Your task to perform on an android device: What's the weather going to be tomorrow? Image 0: 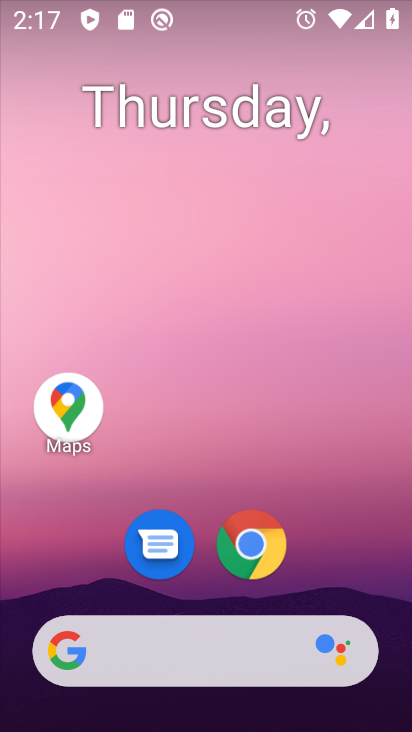
Step 0: click (251, 548)
Your task to perform on an android device: What's the weather going to be tomorrow? Image 1: 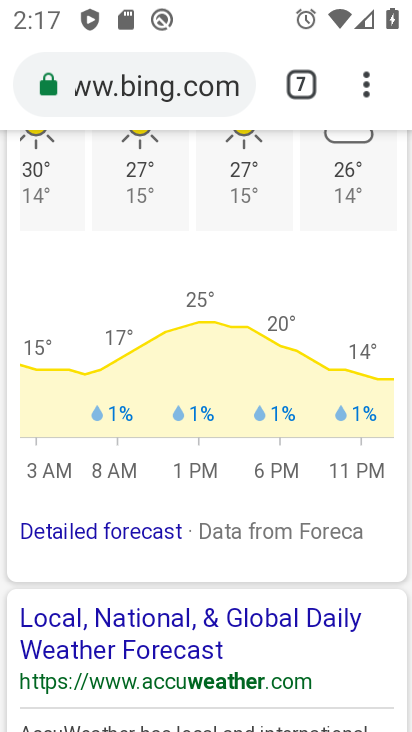
Step 1: click (301, 70)
Your task to perform on an android device: What's the weather going to be tomorrow? Image 2: 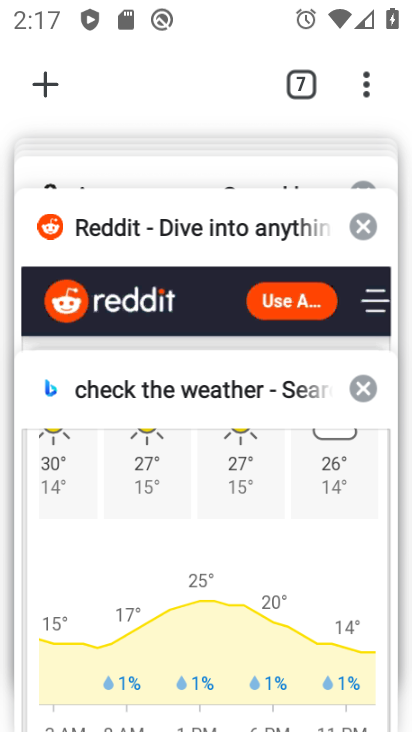
Step 2: click (128, 558)
Your task to perform on an android device: What's the weather going to be tomorrow? Image 3: 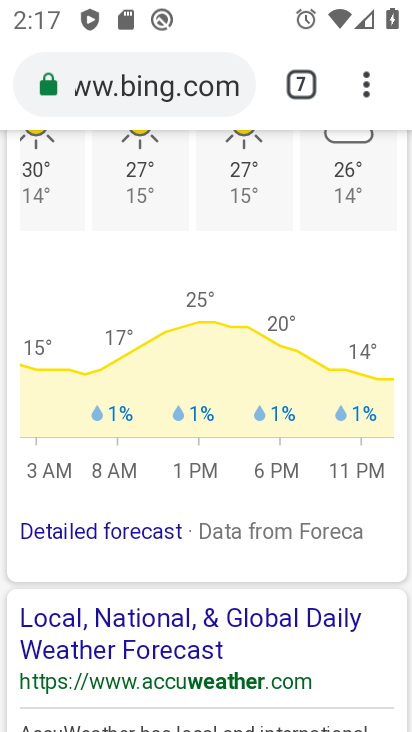
Step 3: drag from (65, 209) to (257, 204)
Your task to perform on an android device: What's the weather going to be tomorrow? Image 4: 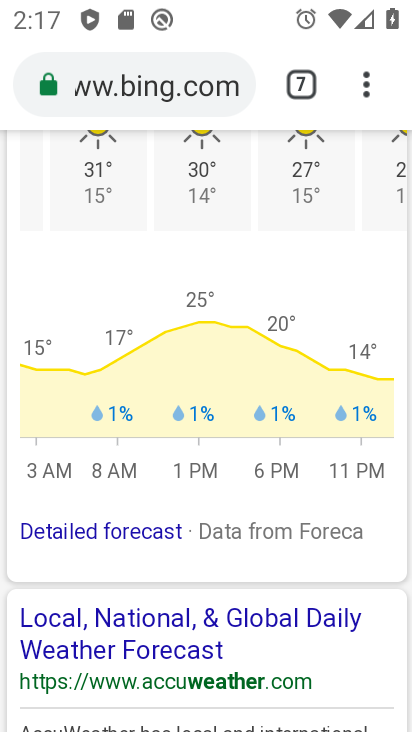
Step 4: click (302, 204)
Your task to perform on an android device: What's the weather going to be tomorrow? Image 5: 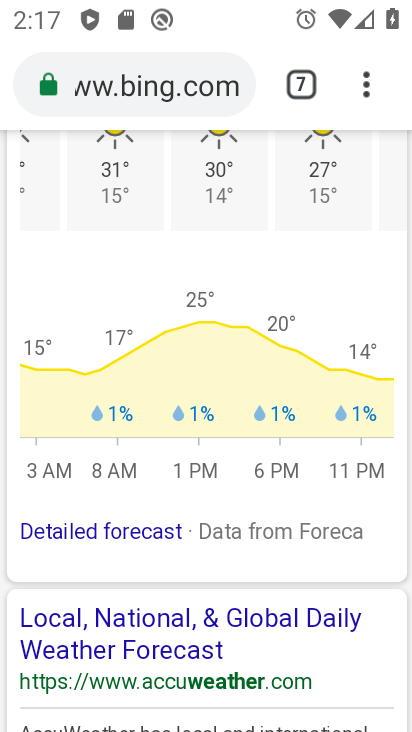
Step 5: drag from (101, 219) to (380, 201)
Your task to perform on an android device: What's the weather going to be tomorrow? Image 6: 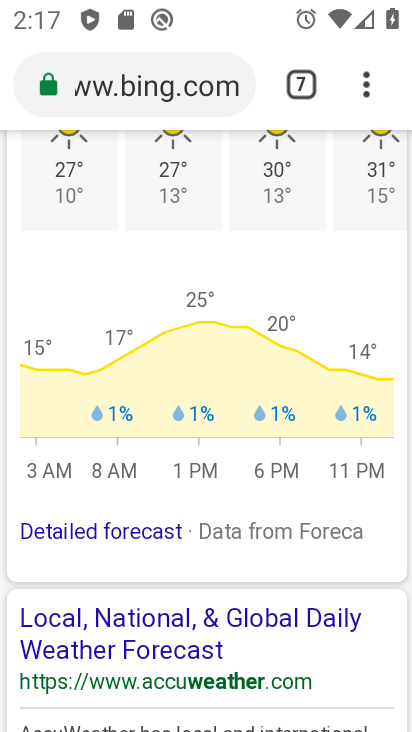
Step 6: drag from (184, 213) to (176, 618)
Your task to perform on an android device: What's the weather going to be tomorrow? Image 7: 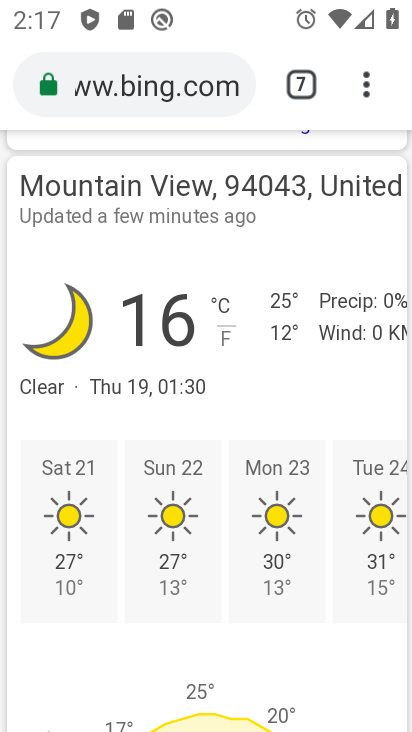
Step 7: drag from (60, 562) to (343, 544)
Your task to perform on an android device: What's the weather going to be tomorrow? Image 8: 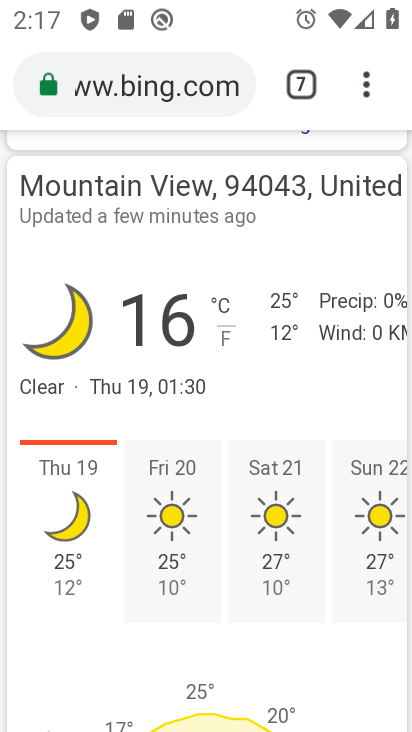
Step 8: drag from (57, 569) to (306, 555)
Your task to perform on an android device: What's the weather going to be tomorrow? Image 9: 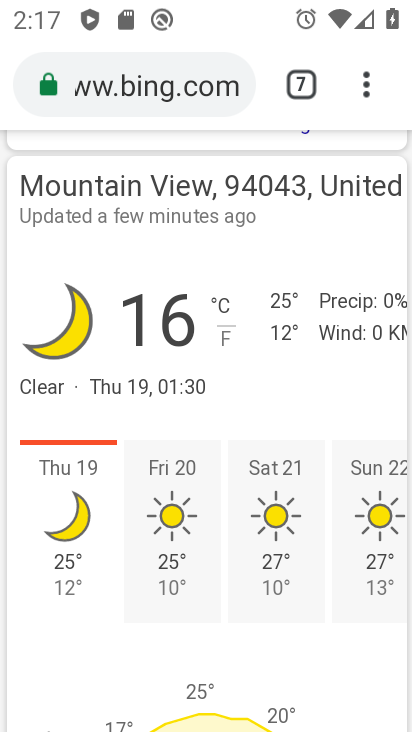
Step 9: click (163, 553)
Your task to perform on an android device: What's the weather going to be tomorrow? Image 10: 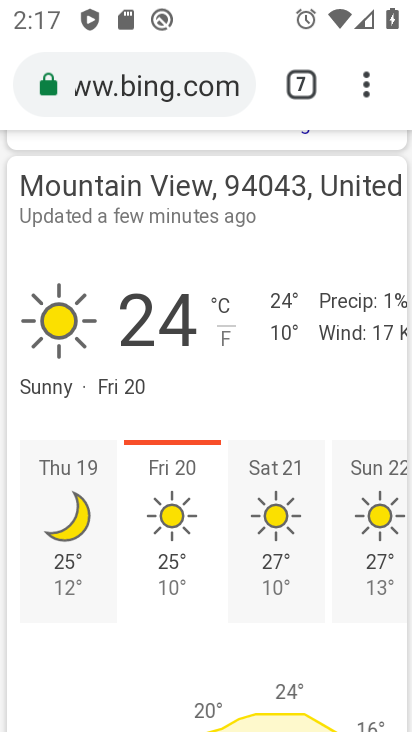
Step 10: task complete